Your task to perform on an android device: turn off wifi Image 0: 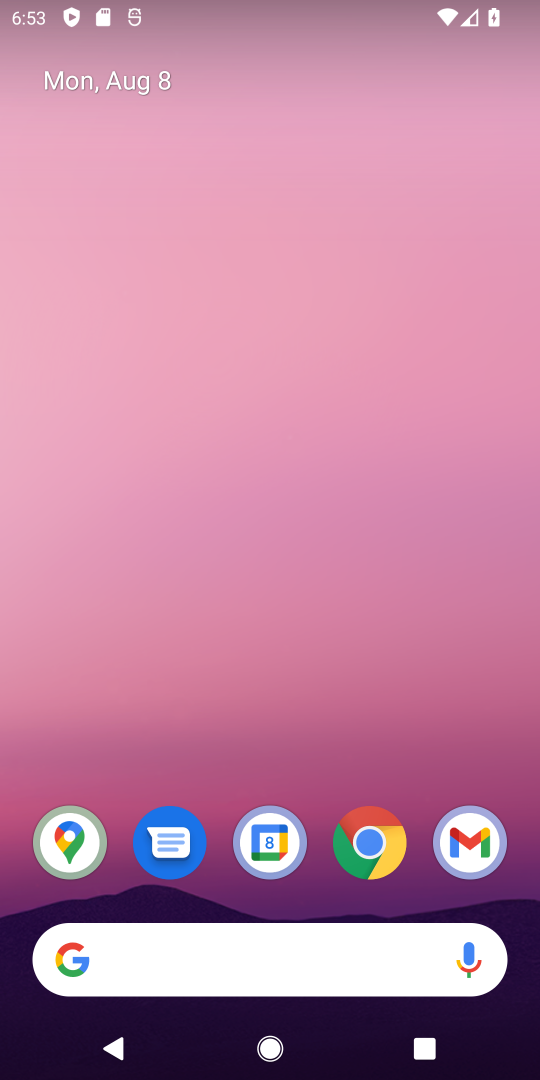
Step 0: drag from (257, 898) to (167, 42)
Your task to perform on an android device: turn off wifi Image 1: 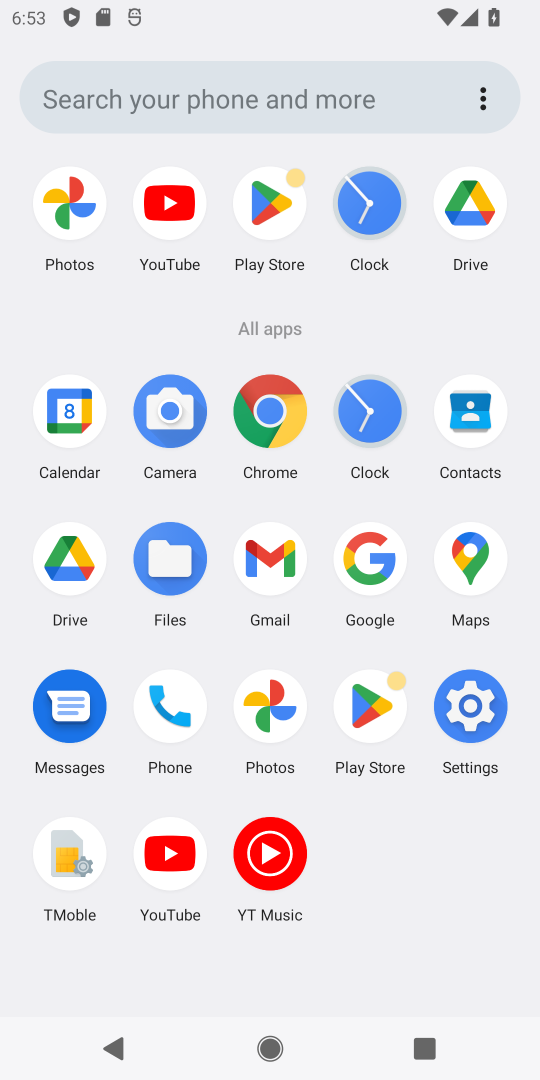
Step 1: click (483, 729)
Your task to perform on an android device: turn off wifi Image 2: 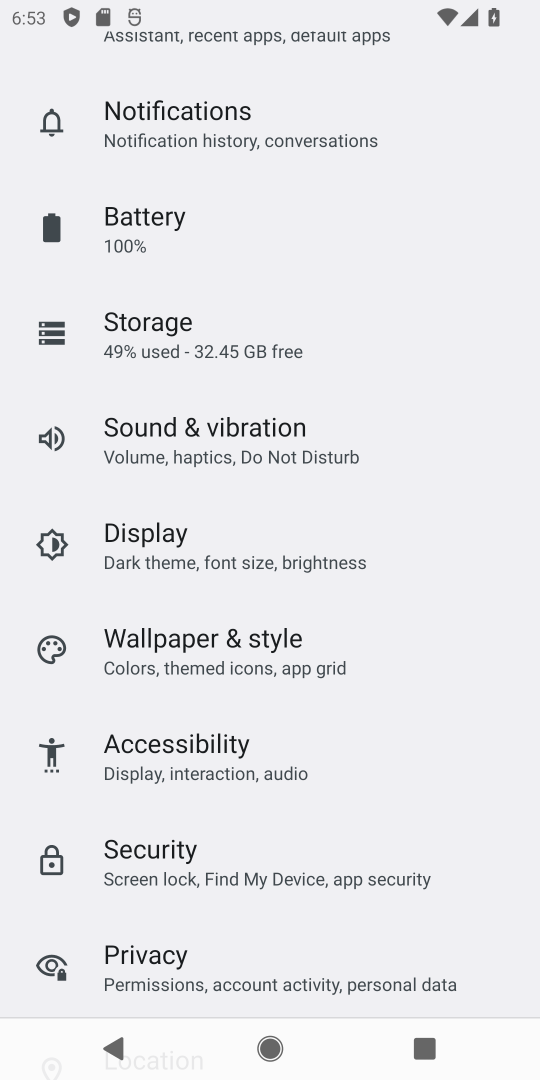
Step 2: drag from (265, 216) to (179, 910)
Your task to perform on an android device: turn off wifi Image 3: 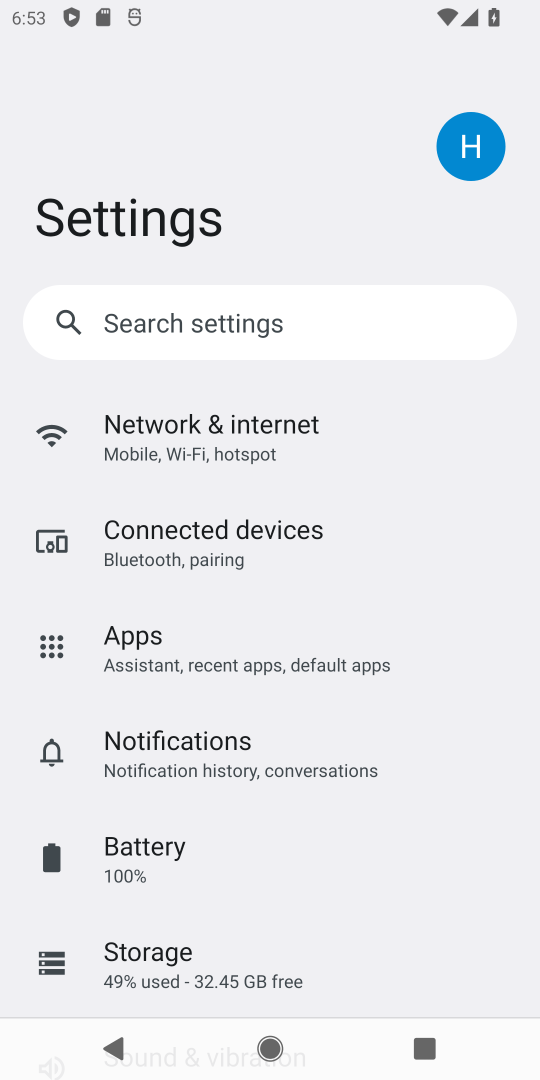
Step 3: click (185, 425)
Your task to perform on an android device: turn off wifi Image 4: 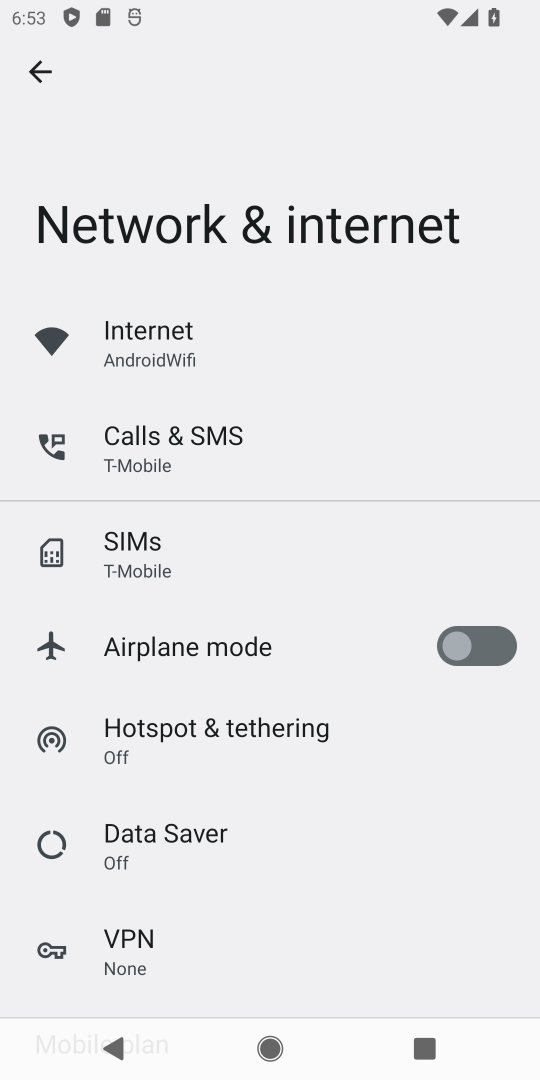
Step 4: click (173, 353)
Your task to perform on an android device: turn off wifi Image 5: 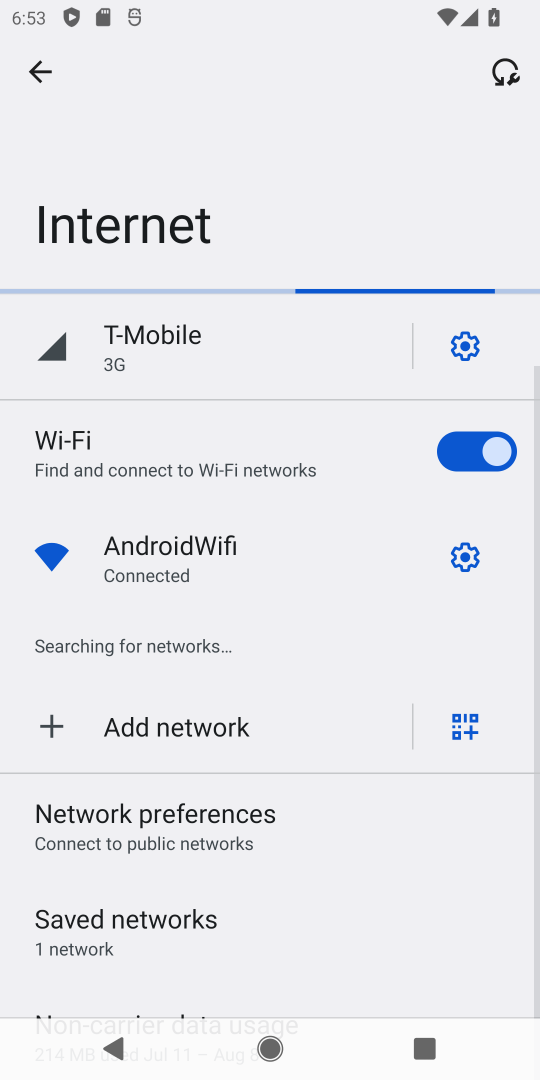
Step 5: click (465, 456)
Your task to perform on an android device: turn off wifi Image 6: 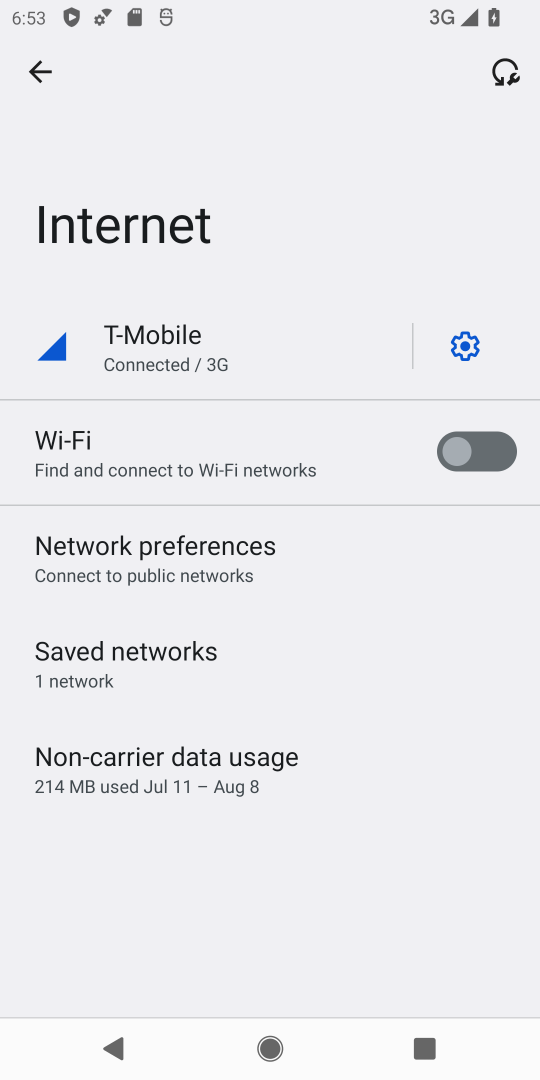
Step 6: task complete